Your task to perform on an android device: add a contact in the contacts app Image 0: 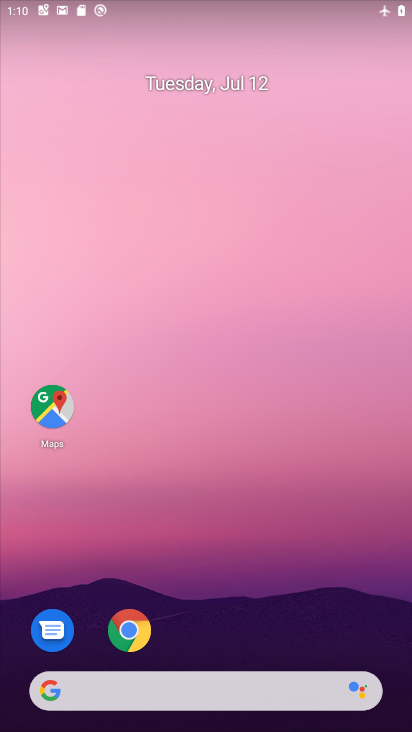
Step 0: drag from (192, 635) to (309, 125)
Your task to perform on an android device: add a contact in the contacts app Image 1: 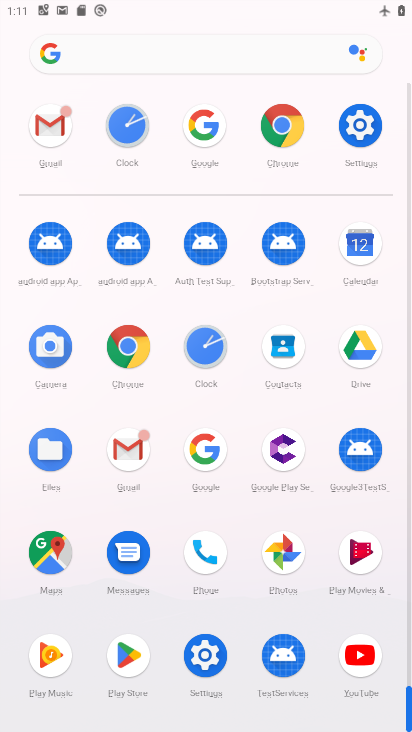
Step 1: click (287, 366)
Your task to perform on an android device: add a contact in the contacts app Image 2: 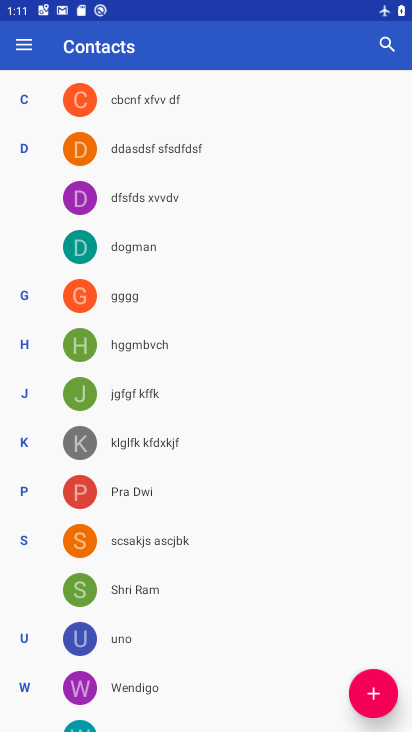
Step 2: click (384, 694)
Your task to perform on an android device: add a contact in the contacts app Image 3: 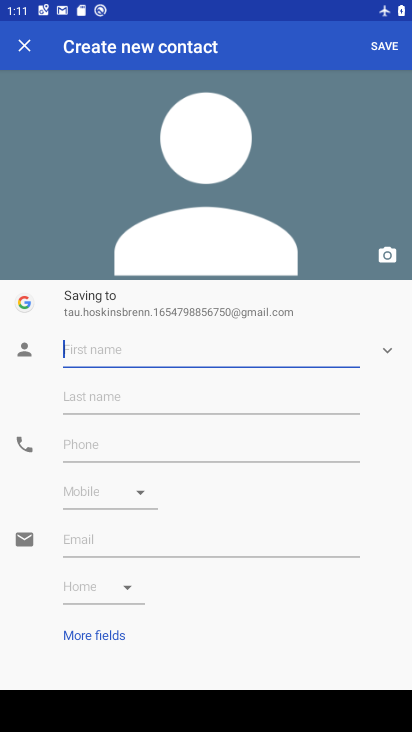
Step 3: type "fhgdgf"
Your task to perform on an android device: add a contact in the contacts app Image 4: 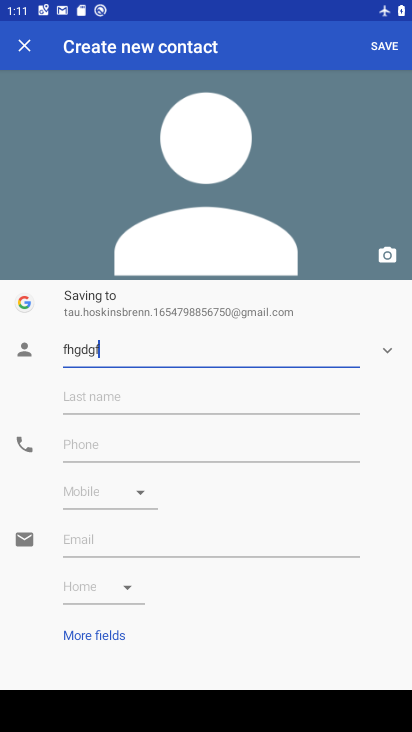
Step 4: click (178, 455)
Your task to perform on an android device: add a contact in the contacts app Image 5: 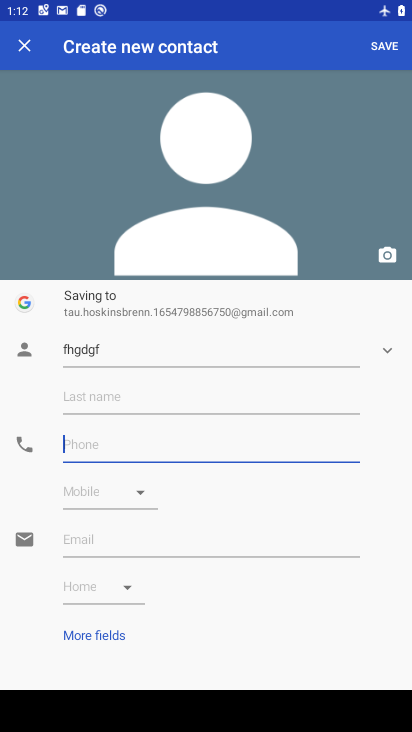
Step 5: type "765348756"
Your task to perform on an android device: add a contact in the contacts app Image 6: 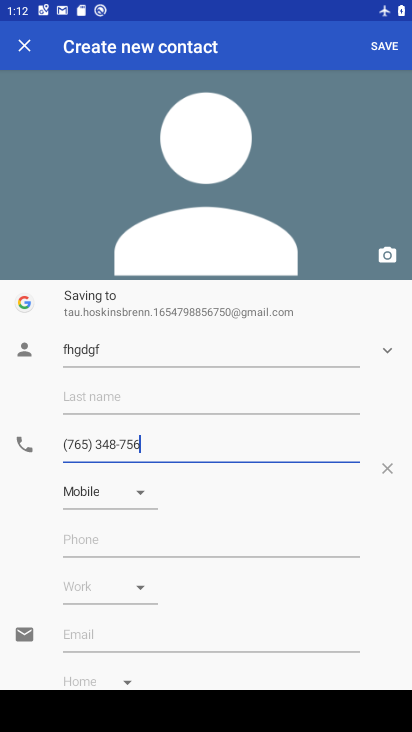
Step 6: type ""
Your task to perform on an android device: add a contact in the contacts app Image 7: 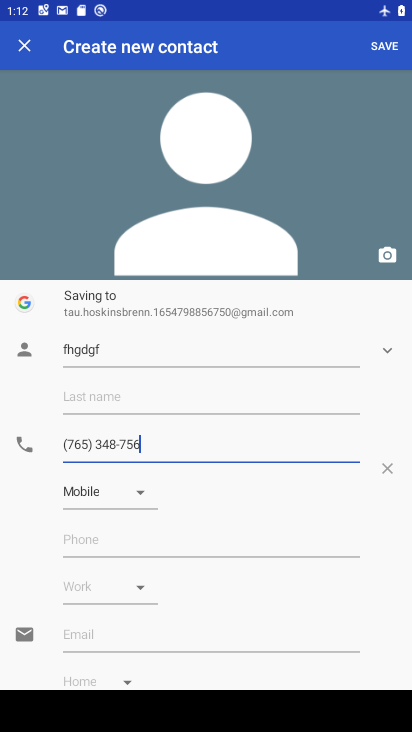
Step 7: click (391, 54)
Your task to perform on an android device: add a contact in the contacts app Image 8: 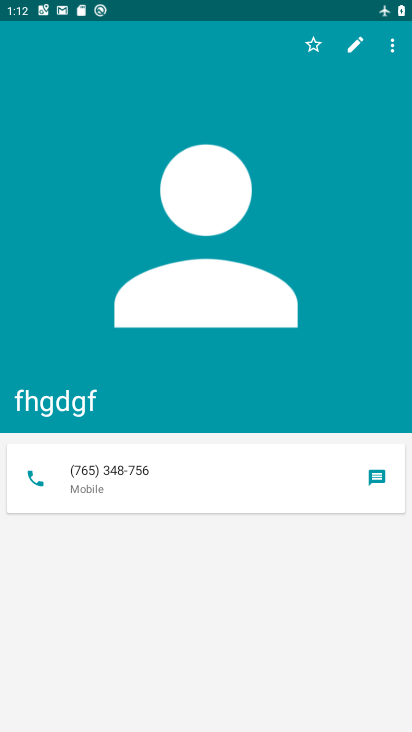
Step 8: task complete